Your task to perform on an android device: Open eBay Image 0: 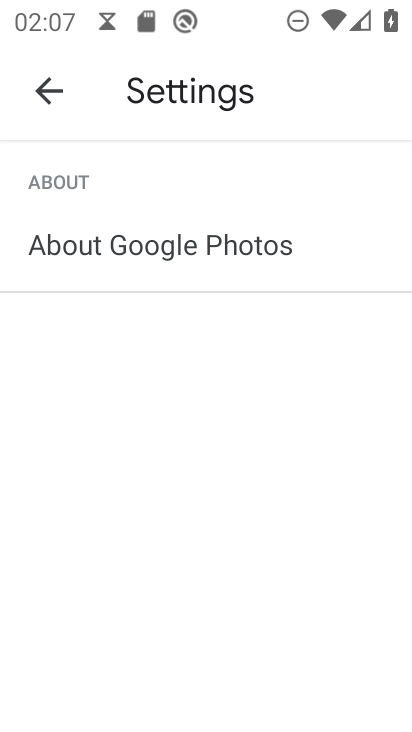
Step 0: press home button
Your task to perform on an android device: Open eBay Image 1: 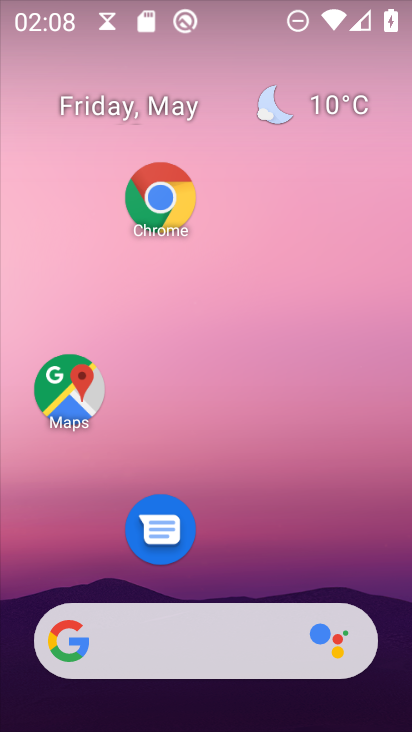
Step 1: drag from (254, 457) to (278, 197)
Your task to perform on an android device: Open eBay Image 2: 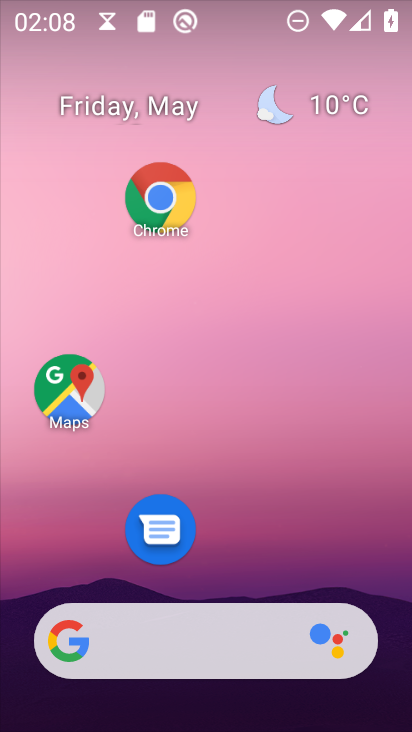
Step 2: drag from (257, 554) to (239, 261)
Your task to perform on an android device: Open eBay Image 3: 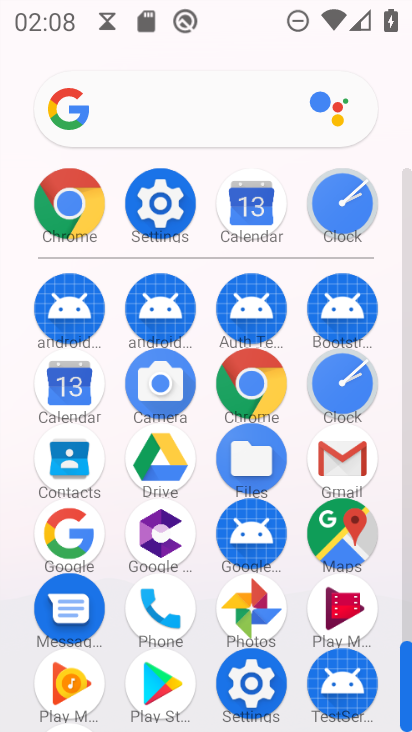
Step 3: click (69, 177)
Your task to perform on an android device: Open eBay Image 4: 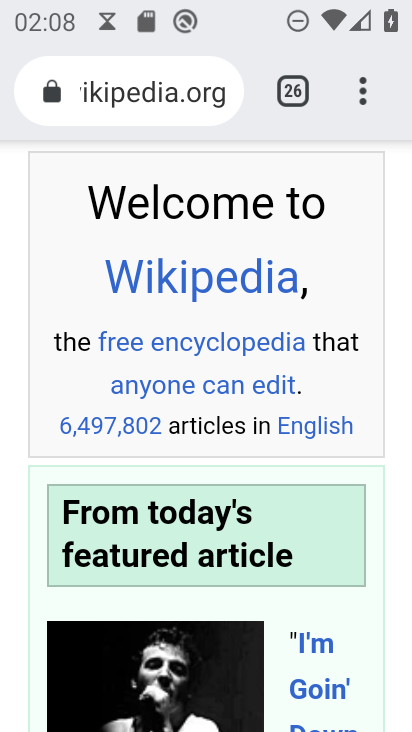
Step 4: click (350, 86)
Your task to perform on an android device: Open eBay Image 5: 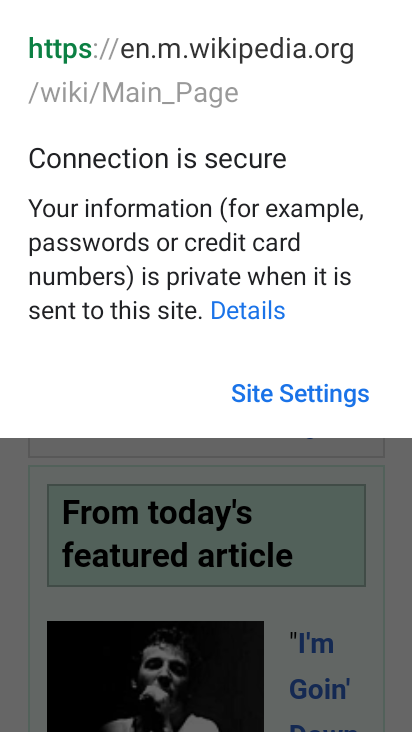
Step 5: press back button
Your task to perform on an android device: Open eBay Image 6: 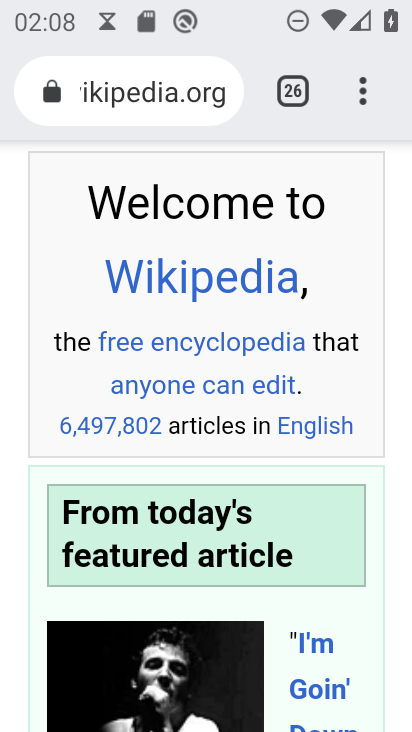
Step 6: click (340, 84)
Your task to perform on an android device: Open eBay Image 7: 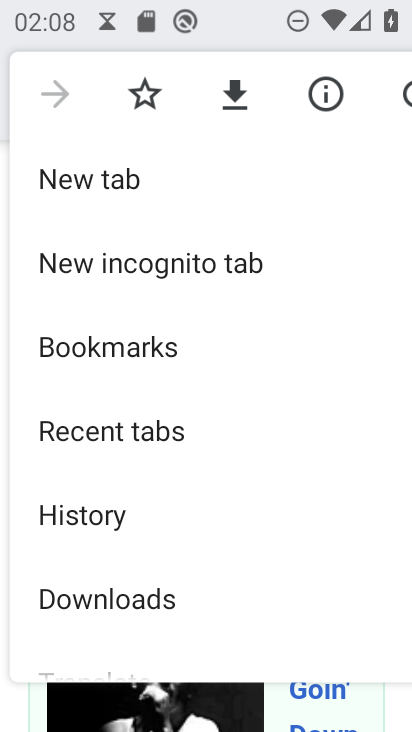
Step 7: click (78, 173)
Your task to perform on an android device: Open eBay Image 8: 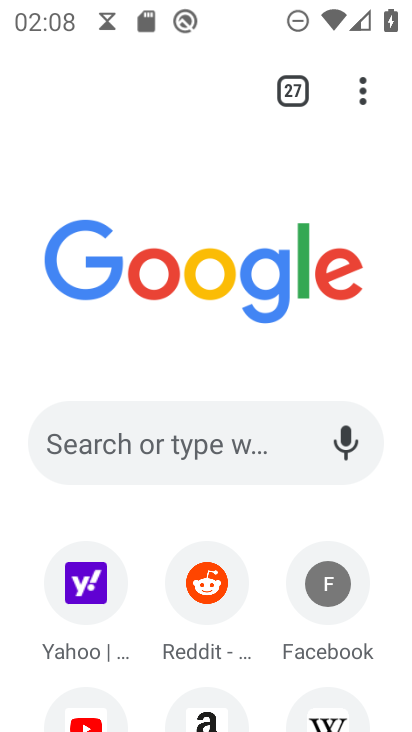
Step 8: click (225, 416)
Your task to perform on an android device: Open eBay Image 9: 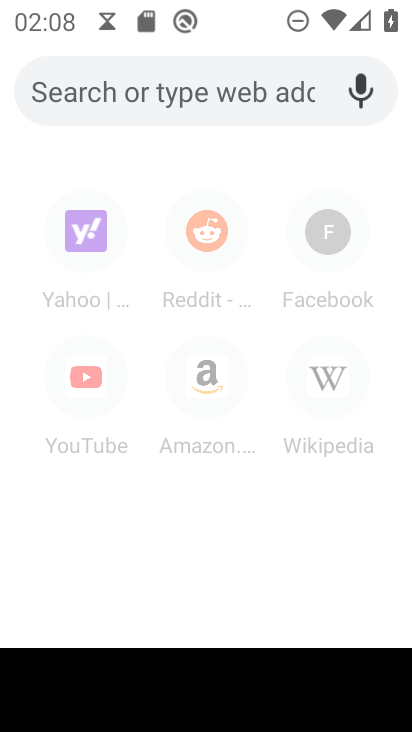
Step 9: click (213, 80)
Your task to perform on an android device: Open eBay Image 10: 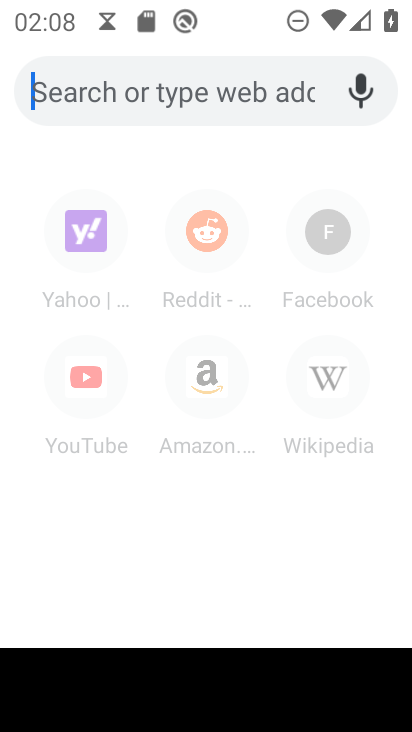
Step 10: type " eBay"
Your task to perform on an android device: Open eBay Image 11: 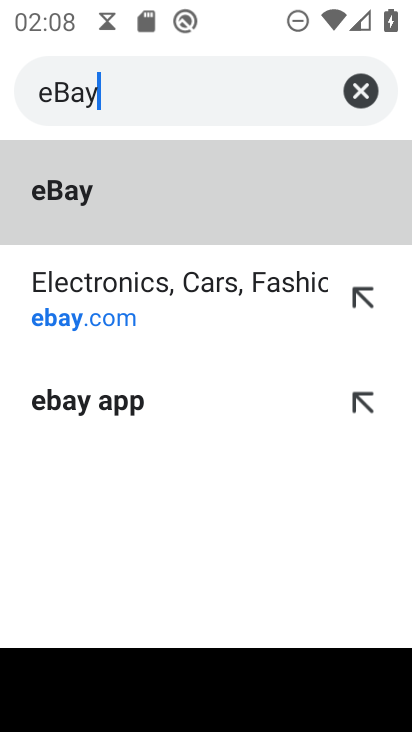
Step 11: click (225, 193)
Your task to perform on an android device: Open eBay Image 12: 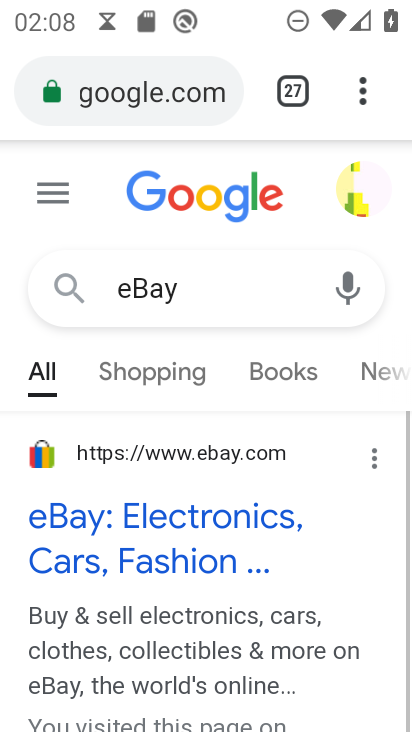
Step 12: task complete